Your task to perform on an android device: Toggle the flashlight Image 0: 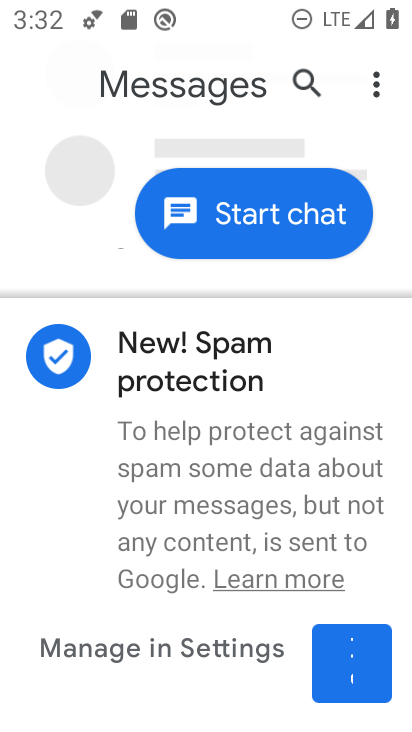
Step 0: press home button
Your task to perform on an android device: Toggle the flashlight Image 1: 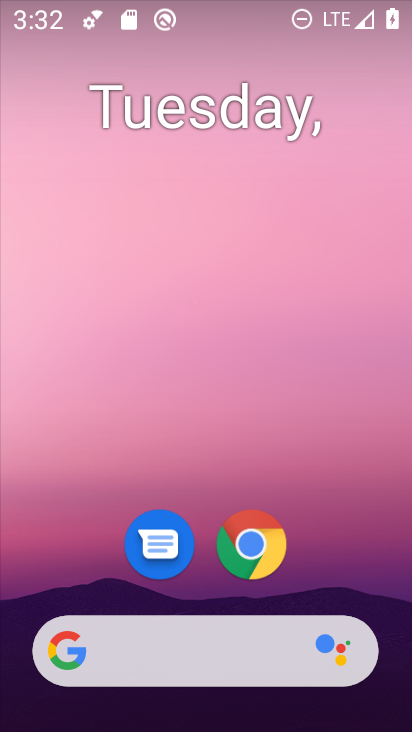
Step 1: drag from (244, 4) to (239, 337)
Your task to perform on an android device: Toggle the flashlight Image 2: 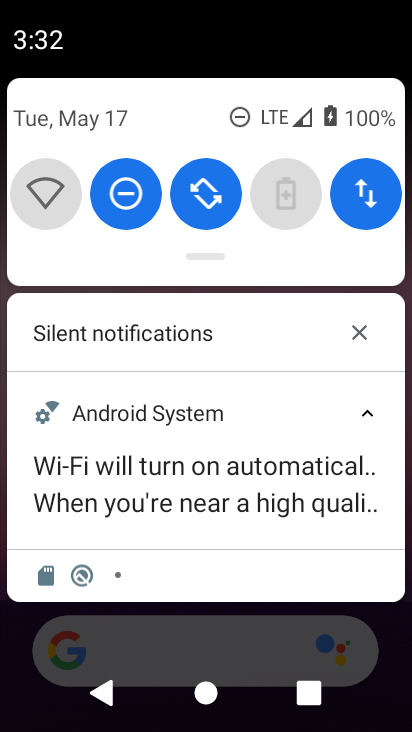
Step 2: drag from (252, 115) to (237, 352)
Your task to perform on an android device: Toggle the flashlight Image 3: 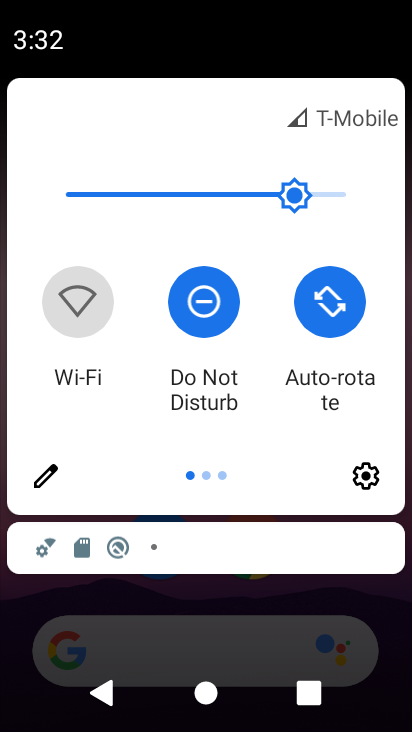
Step 3: click (48, 477)
Your task to perform on an android device: Toggle the flashlight Image 4: 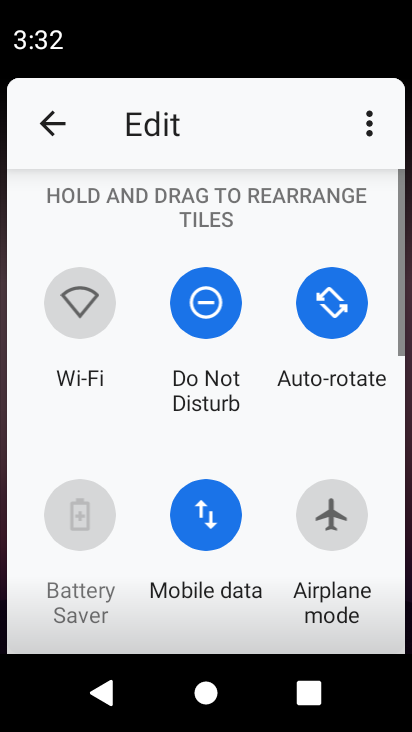
Step 4: task complete